Your task to perform on an android device: turn vacation reply on in the gmail app Image 0: 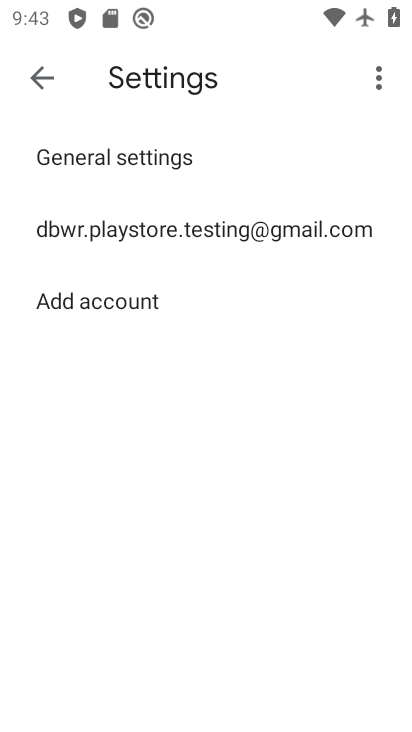
Step 0: click (33, 69)
Your task to perform on an android device: turn vacation reply on in the gmail app Image 1: 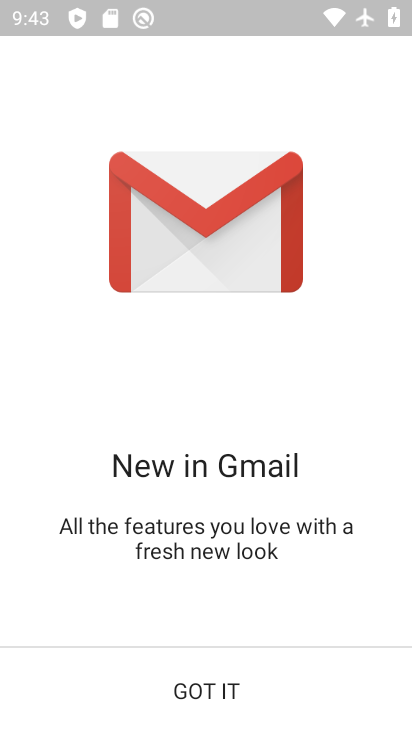
Step 1: click (227, 696)
Your task to perform on an android device: turn vacation reply on in the gmail app Image 2: 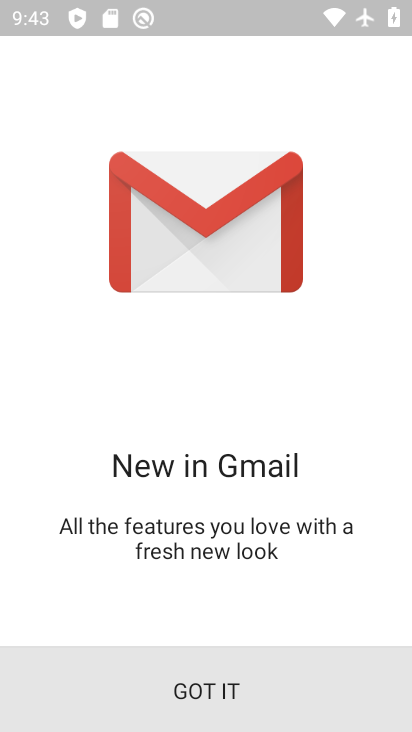
Step 2: click (226, 696)
Your task to perform on an android device: turn vacation reply on in the gmail app Image 3: 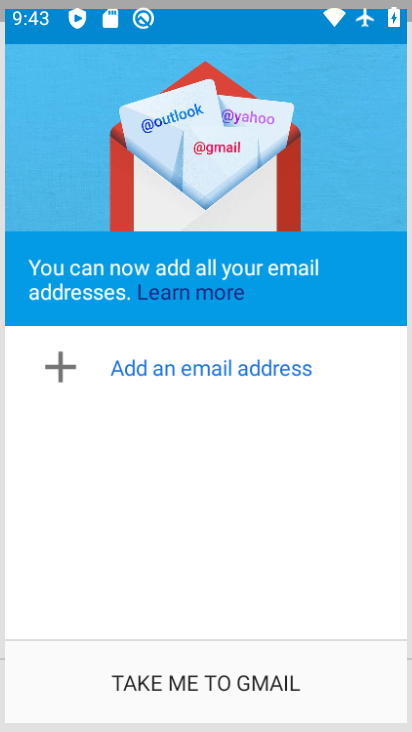
Step 3: click (226, 696)
Your task to perform on an android device: turn vacation reply on in the gmail app Image 4: 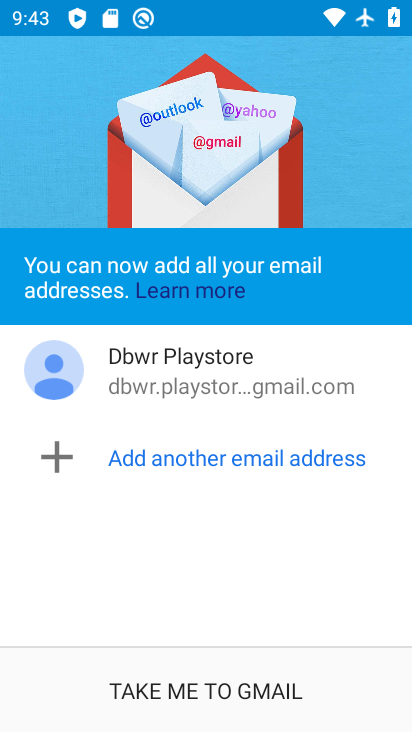
Step 4: click (226, 696)
Your task to perform on an android device: turn vacation reply on in the gmail app Image 5: 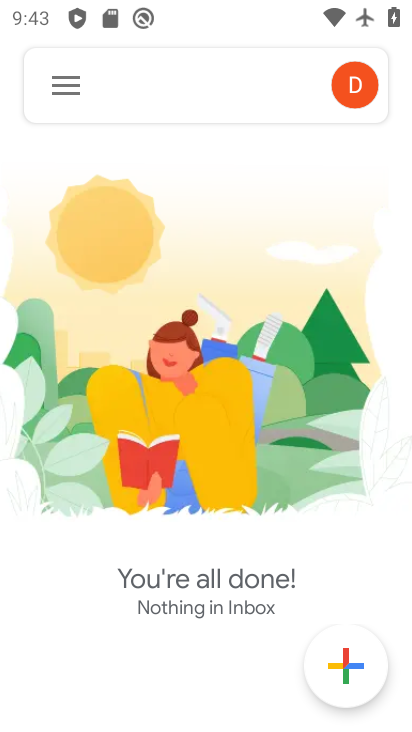
Step 5: click (62, 87)
Your task to perform on an android device: turn vacation reply on in the gmail app Image 6: 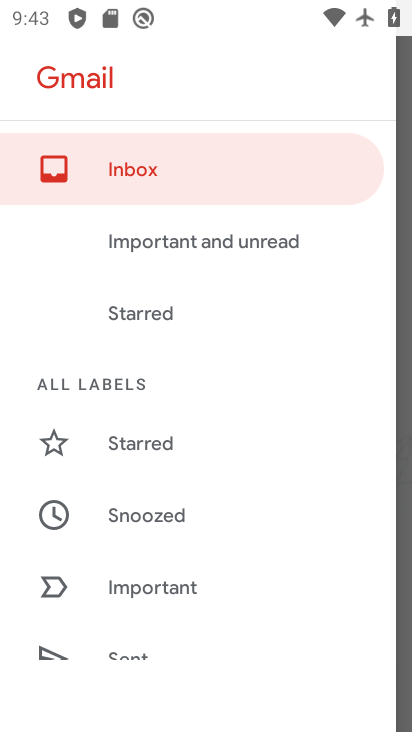
Step 6: drag from (183, 442) to (163, 251)
Your task to perform on an android device: turn vacation reply on in the gmail app Image 7: 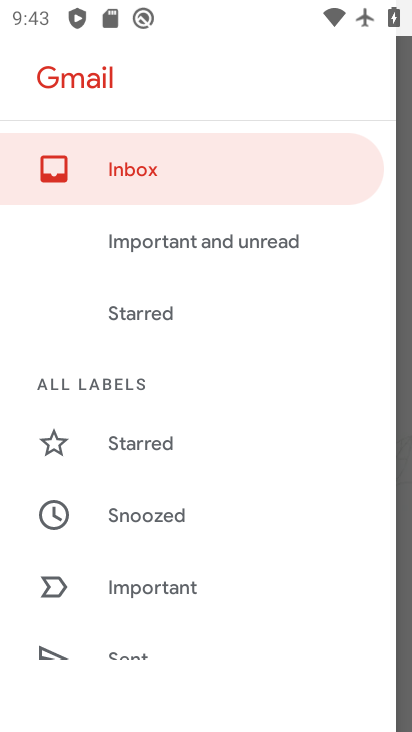
Step 7: drag from (207, 534) to (298, 186)
Your task to perform on an android device: turn vacation reply on in the gmail app Image 8: 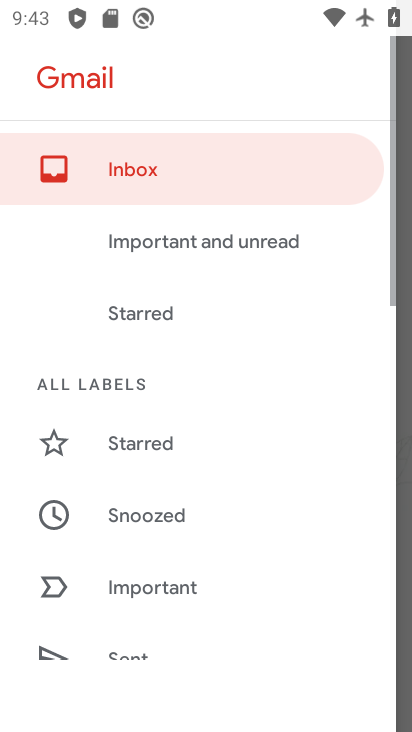
Step 8: drag from (250, 467) to (203, 51)
Your task to perform on an android device: turn vacation reply on in the gmail app Image 9: 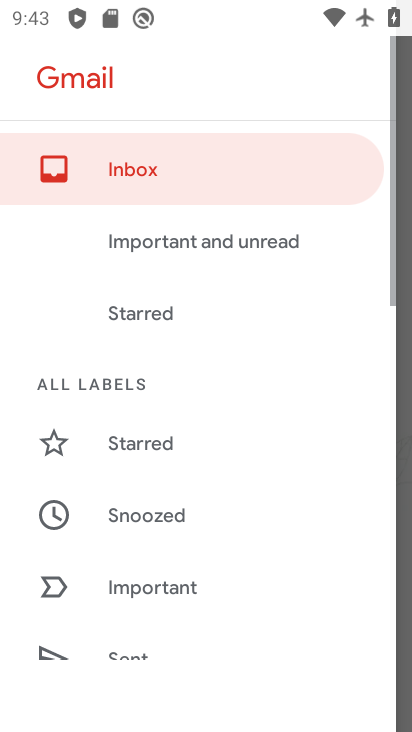
Step 9: drag from (193, 690) to (156, 107)
Your task to perform on an android device: turn vacation reply on in the gmail app Image 10: 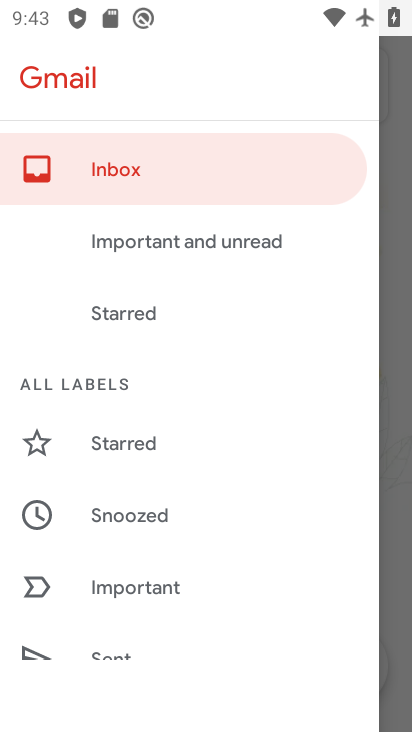
Step 10: drag from (151, 502) to (153, 6)
Your task to perform on an android device: turn vacation reply on in the gmail app Image 11: 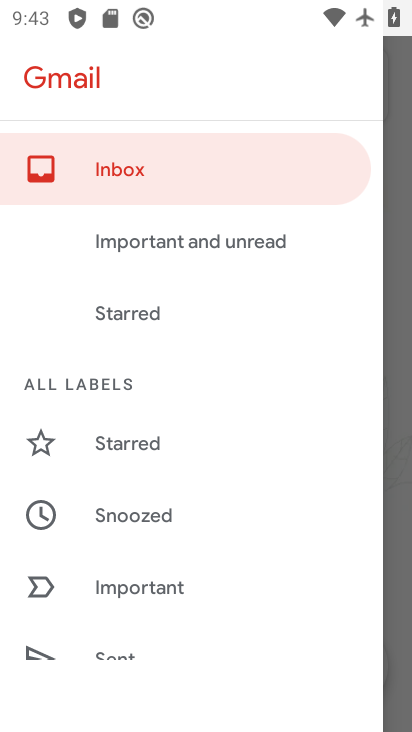
Step 11: drag from (166, 577) to (220, 49)
Your task to perform on an android device: turn vacation reply on in the gmail app Image 12: 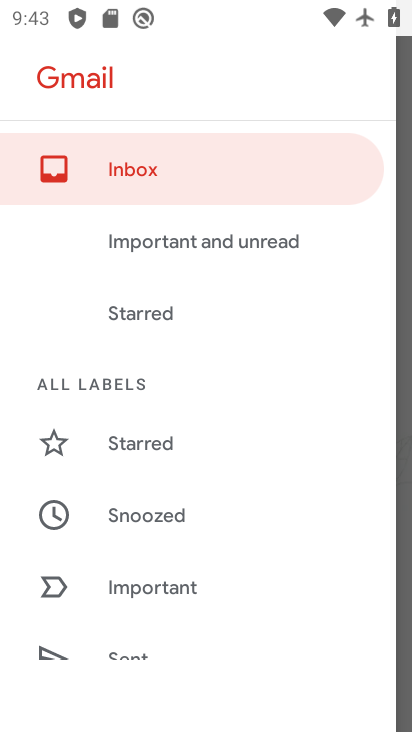
Step 12: drag from (170, 568) to (200, 96)
Your task to perform on an android device: turn vacation reply on in the gmail app Image 13: 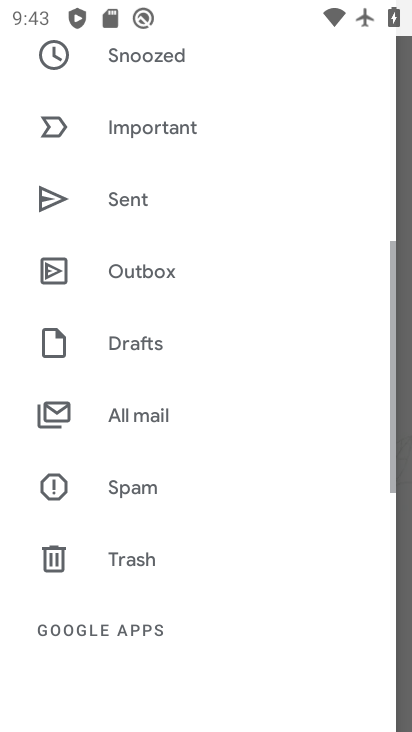
Step 13: drag from (225, 534) to (213, 111)
Your task to perform on an android device: turn vacation reply on in the gmail app Image 14: 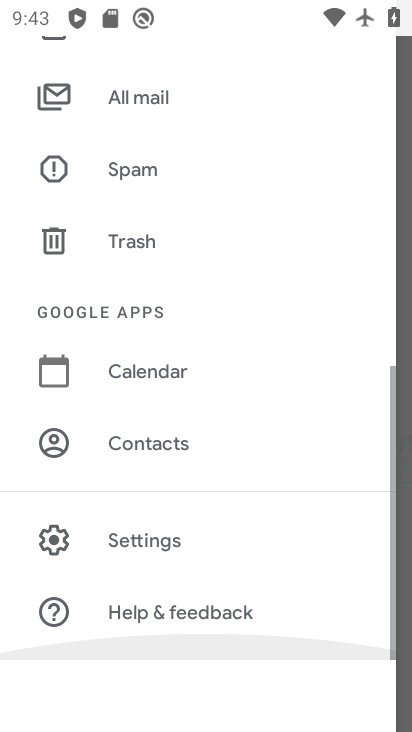
Step 14: drag from (216, 458) to (215, 8)
Your task to perform on an android device: turn vacation reply on in the gmail app Image 15: 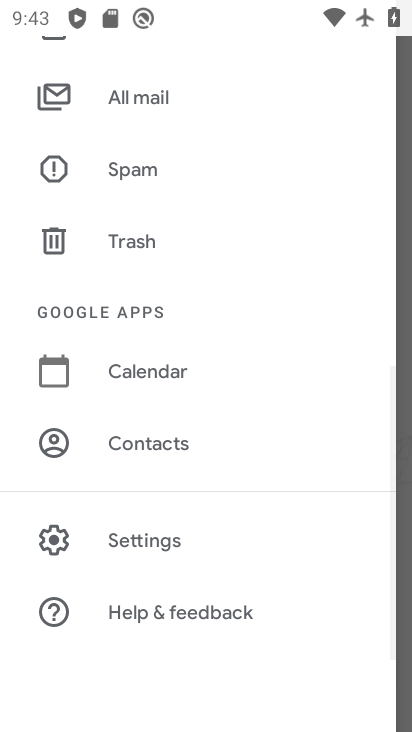
Step 15: click (142, 540)
Your task to perform on an android device: turn vacation reply on in the gmail app Image 16: 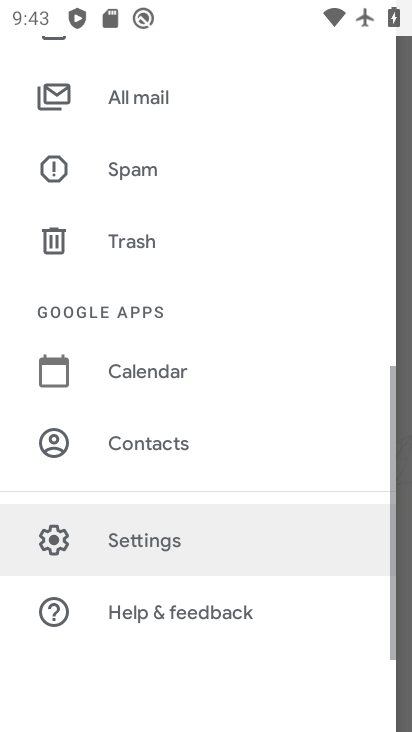
Step 16: click (141, 540)
Your task to perform on an android device: turn vacation reply on in the gmail app Image 17: 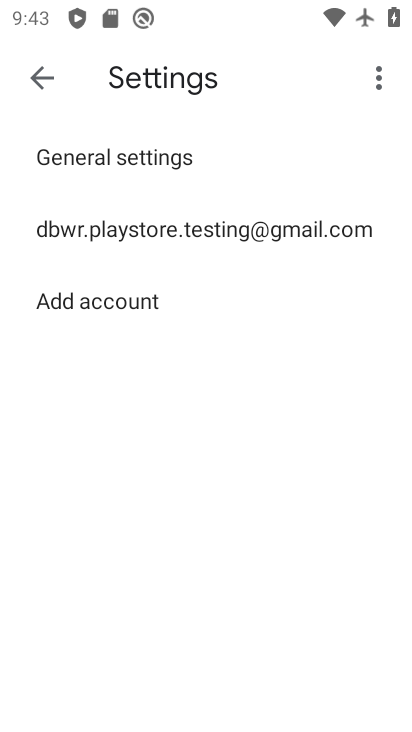
Step 17: click (148, 237)
Your task to perform on an android device: turn vacation reply on in the gmail app Image 18: 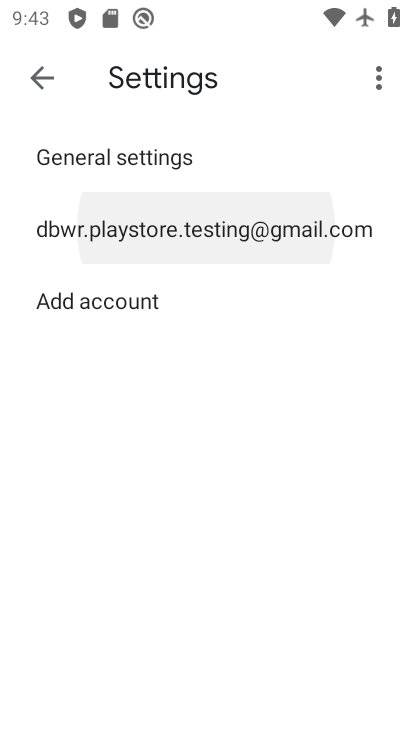
Step 18: click (148, 237)
Your task to perform on an android device: turn vacation reply on in the gmail app Image 19: 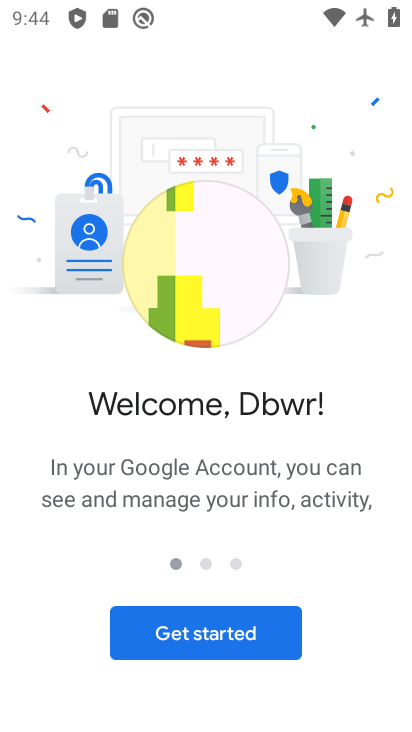
Step 19: click (195, 630)
Your task to perform on an android device: turn vacation reply on in the gmail app Image 20: 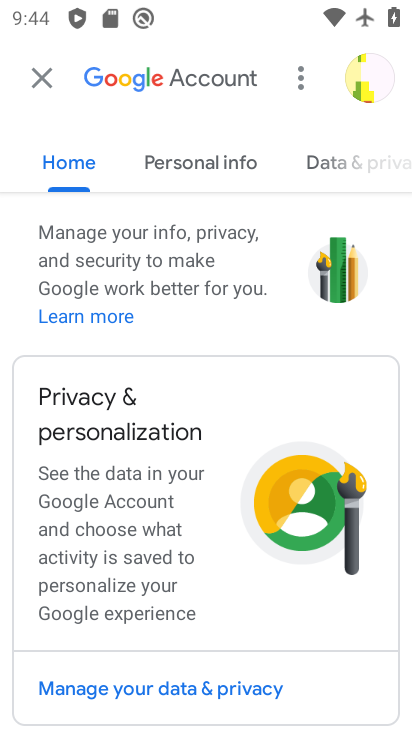
Step 20: click (218, 639)
Your task to perform on an android device: turn vacation reply on in the gmail app Image 21: 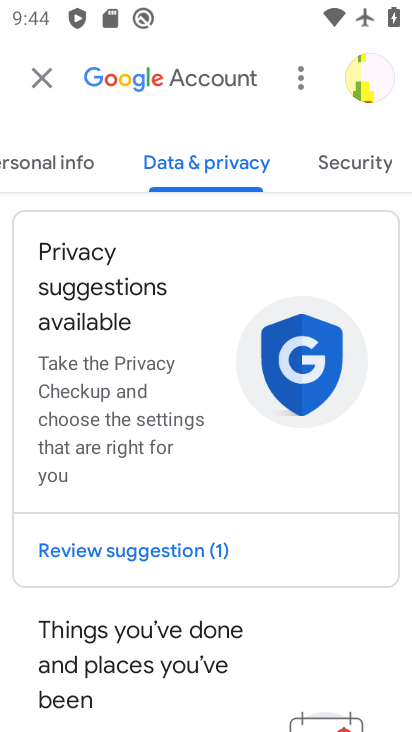
Step 21: click (37, 76)
Your task to perform on an android device: turn vacation reply on in the gmail app Image 22: 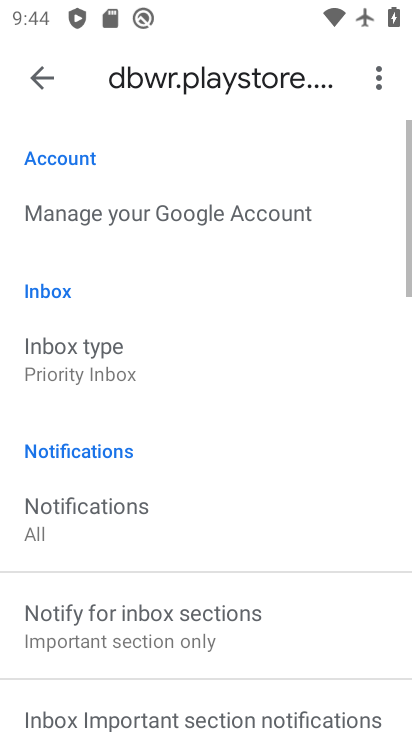
Step 22: click (40, 77)
Your task to perform on an android device: turn vacation reply on in the gmail app Image 23: 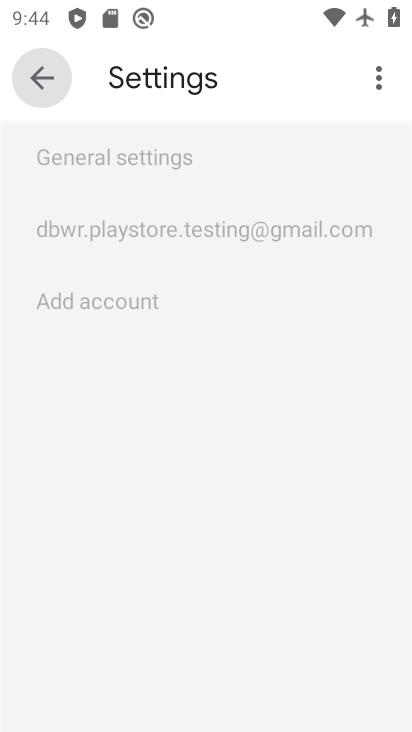
Step 23: click (39, 80)
Your task to perform on an android device: turn vacation reply on in the gmail app Image 24: 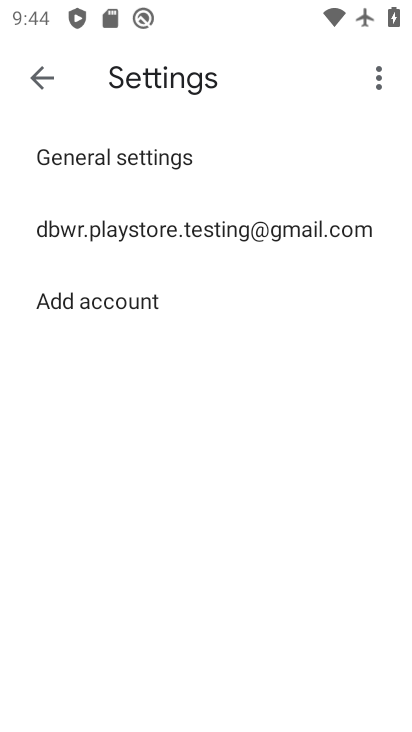
Step 24: click (40, 79)
Your task to perform on an android device: turn vacation reply on in the gmail app Image 25: 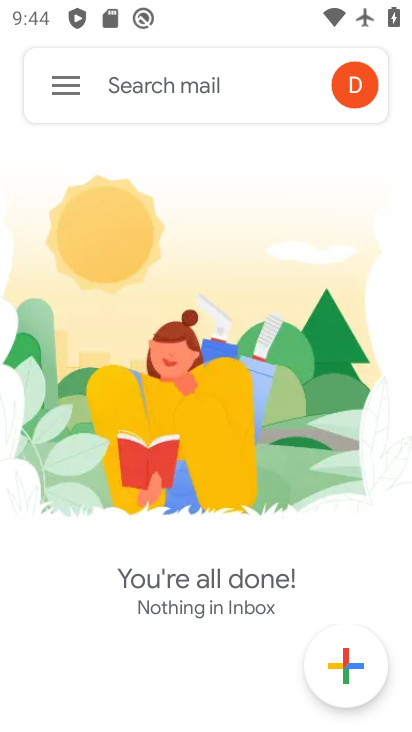
Step 25: click (63, 81)
Your task to perform on an android device: turn vacation reply on in the gmail app Image 26: 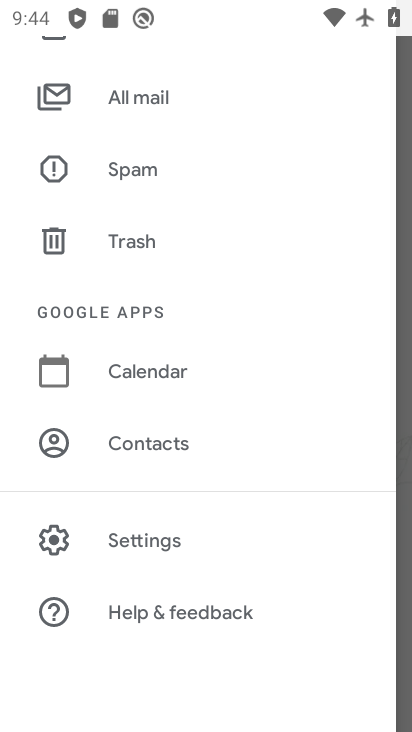
Step 26: click (128, 531)
Your task to perform on an android device: turn vacation reply on in the gmail app Image 27: 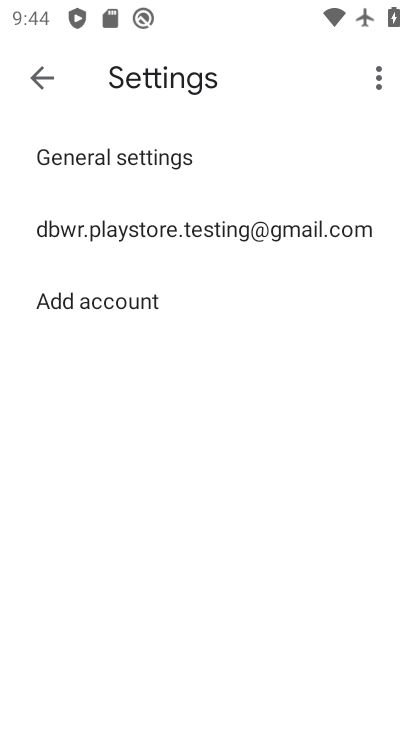
Step 27: click (125, 233)
Your task to perform on an android device: turn vacation reply on in the gmail app Image 28: 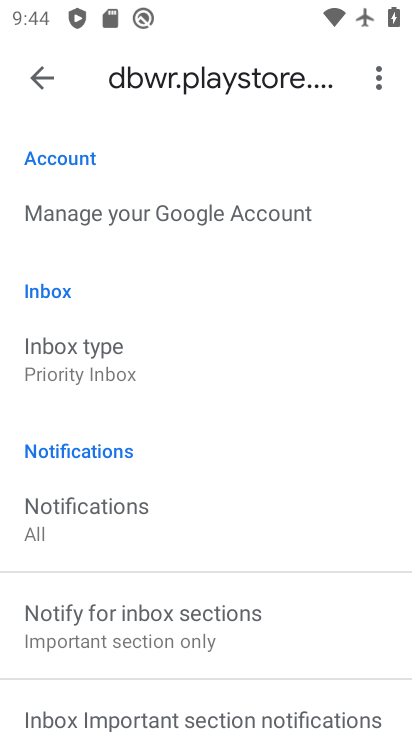
Step 28: click (92, 116)
Your task to perform on an android device: turn vacation reply on in the gmail app Image 29: 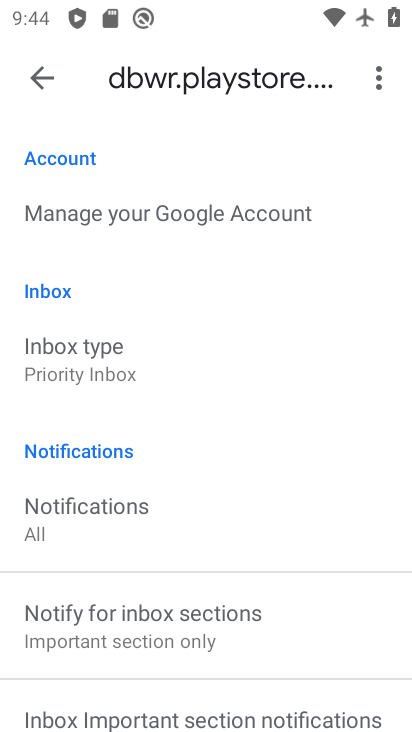
Step 29: drag from (154, 475) to (132, 99)
Your task to perform on an android device: turn vacation reply on in the gmail app Image 30: 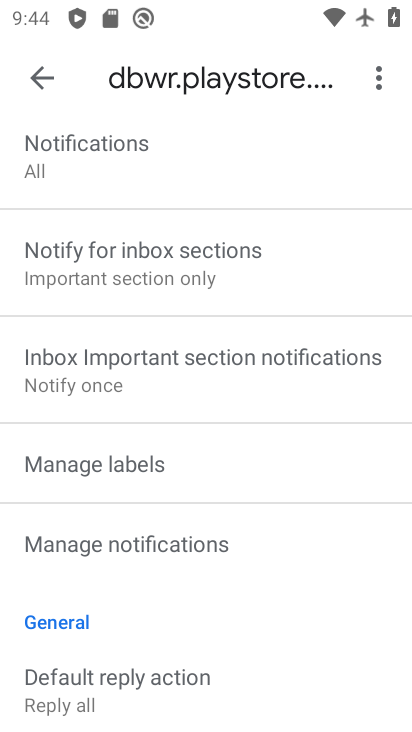
Step 30: click (173, 176)
Your task to perform on an android device: turn vacation reply on in the gmail app Image 31: 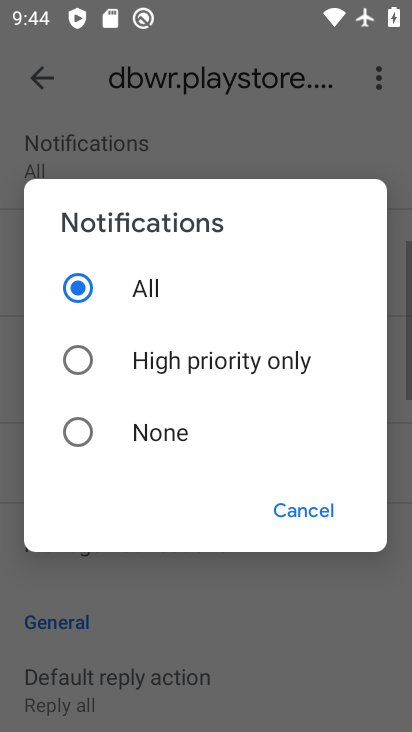
Step 31: drag from (169, 536) to (145, 185)
Your task to perform on an android device: turn vacation reply on in the gmail app Image 32: 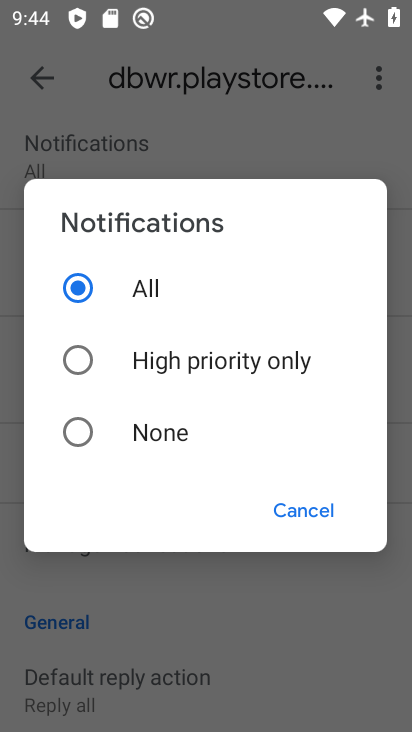
Step 32: drag from (119, 614) to (156, 86)
Your task to perform on an android device: turn vacation reply on in the gmail app Image 33: 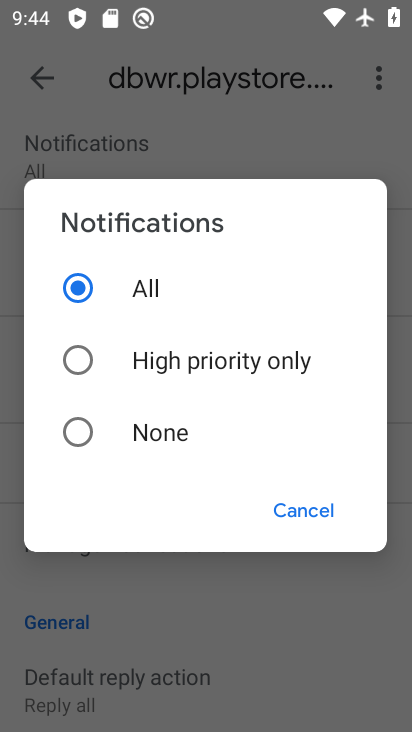
Step 33: click (308, 508)
Your task to perform on an android device: turn vacation reply on in the gmail app Image 34: 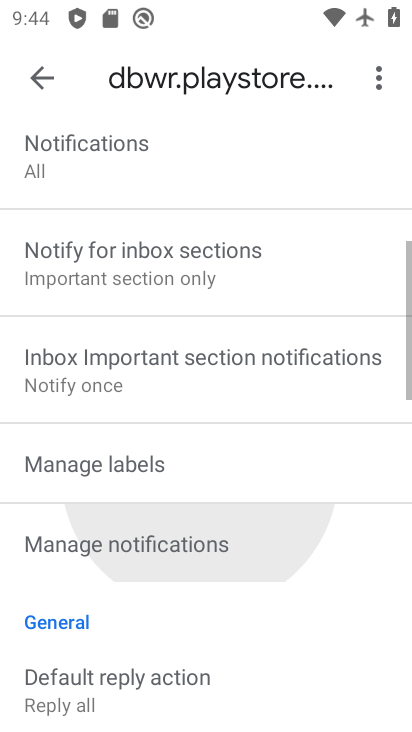
Step 34: click (298, 511)
Your task to perform on an android device: turn vacation reply on in the gmail app Image 35: 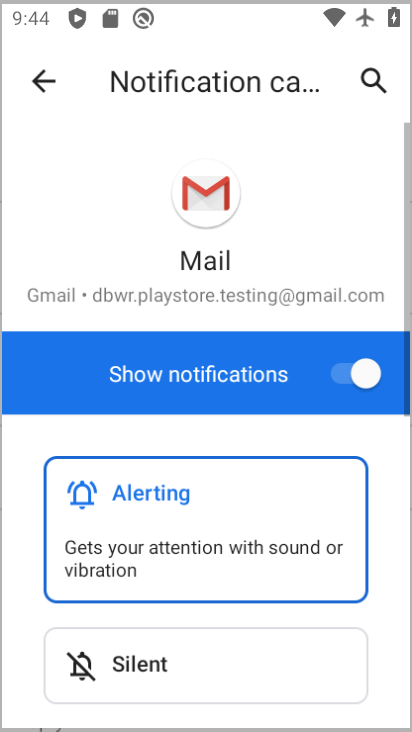
Step 35: click (298, 511)
Your task to perform on an android device: turn vacation reply on in the gmail app Image 36: 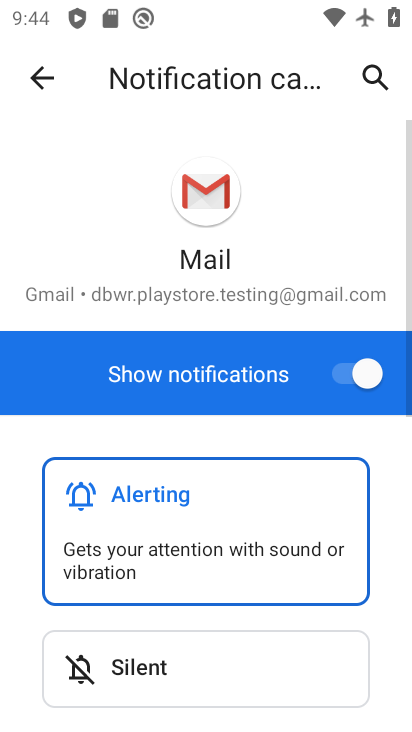
Step 36: click (38, 79)
Your task to perform on an android device: turn vacation reply on in the gmail app Image 37: 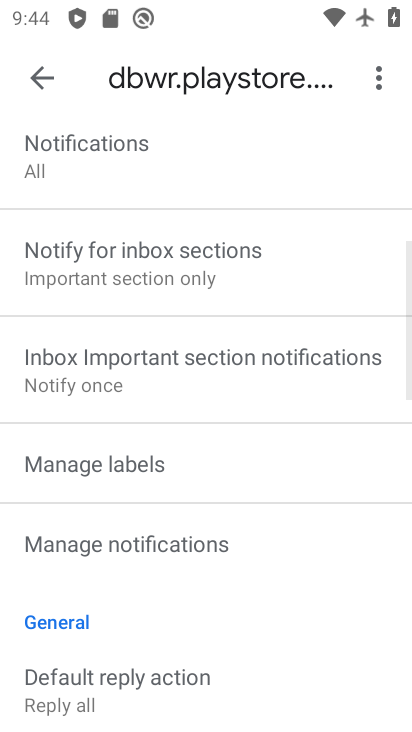
Step 37: drag from (107, 465) to (84, 114)
Your task to perform on an android device: turn vacation reply on in the gmail app Image 38: 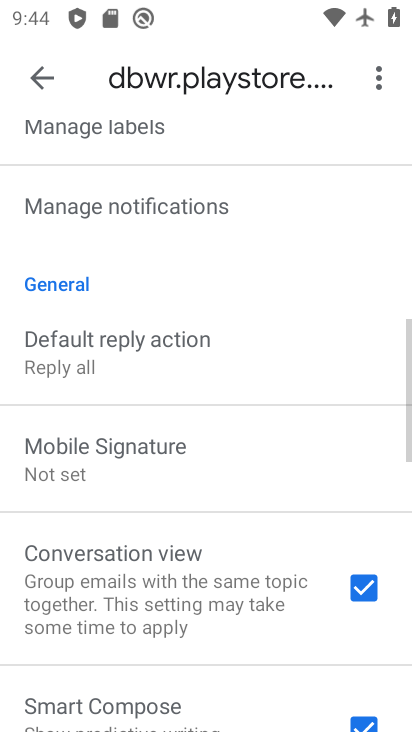
Step 38: drag from (75, 474) to (82, 168)
Your task to perform on an android device: turn vacation reply on in the gmail app Image 39: 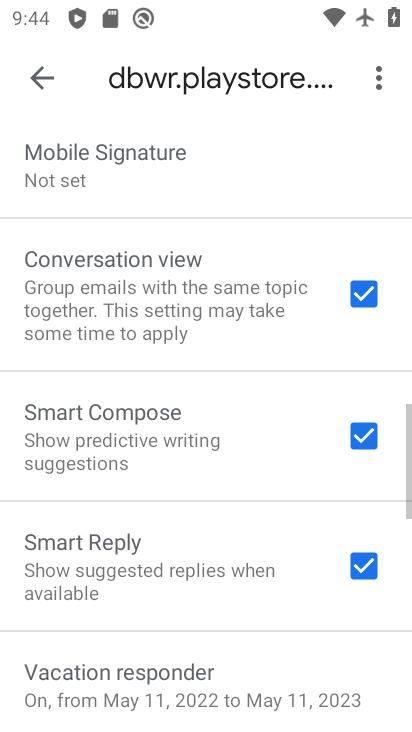
Step 39: drag from (176, 484) to (171, 105)
Your task to perform on an android device: turn vacation reply on in the gmail app Image 40: 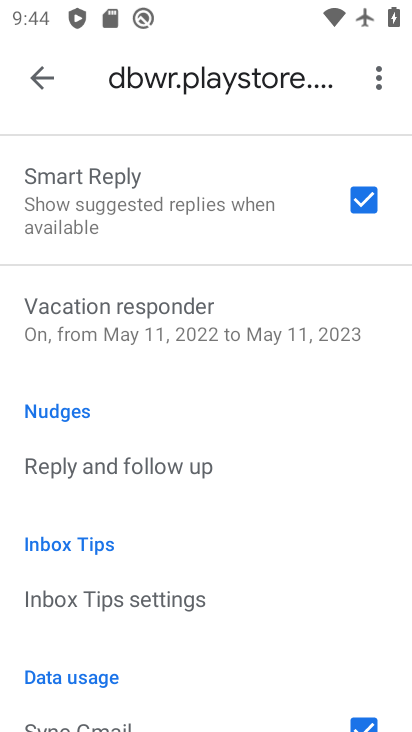
Step 40: click (217, 315)
Your task to perform on an android device: turn vacation reply on in the gmail app Image 41: 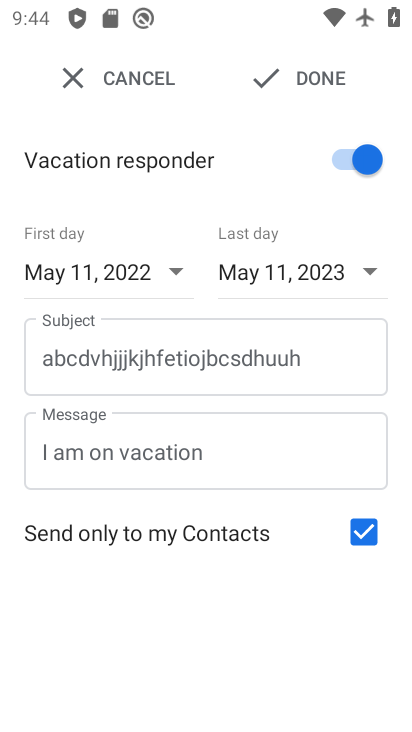
Step 41: click (370, 149)
Your task to perform on an android device: turn vacation reply on in the gmail app Image 42: 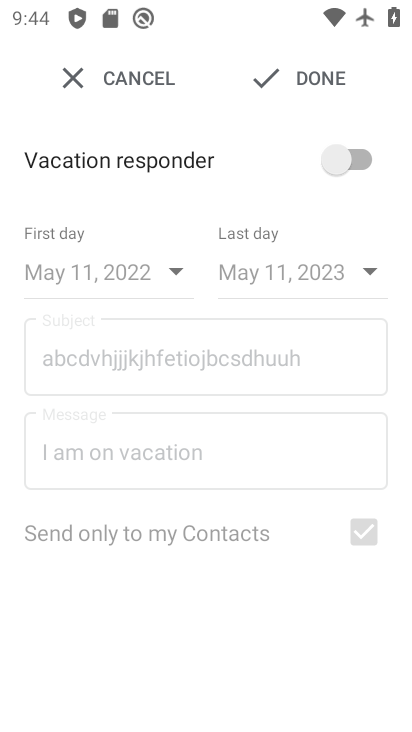
Step 42: click (343, 154)
Your task to perform on an android device: turn vacation reply on in the gmail app Image 43: 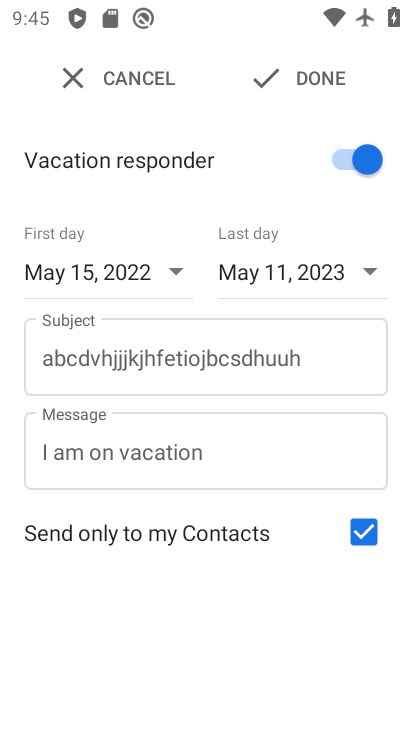
Step 43: task complete